Your task to perform on an android device: Open Chrome and go to settings Image 0: 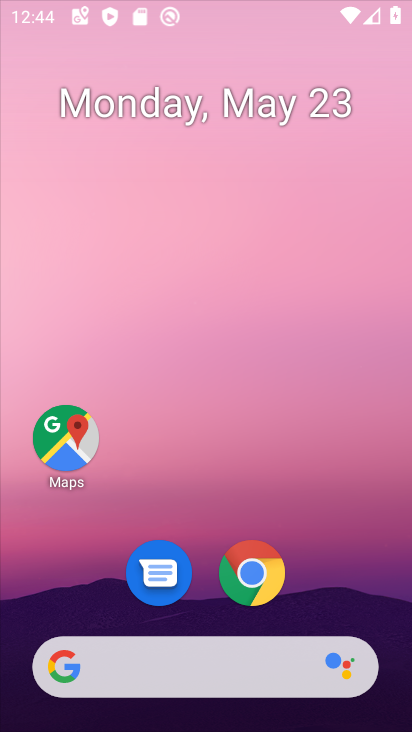
Step 0: drag from (347, 656) to (328, 7)
Your task to perform on an android device: Open Chrome and go to settings Image 1: 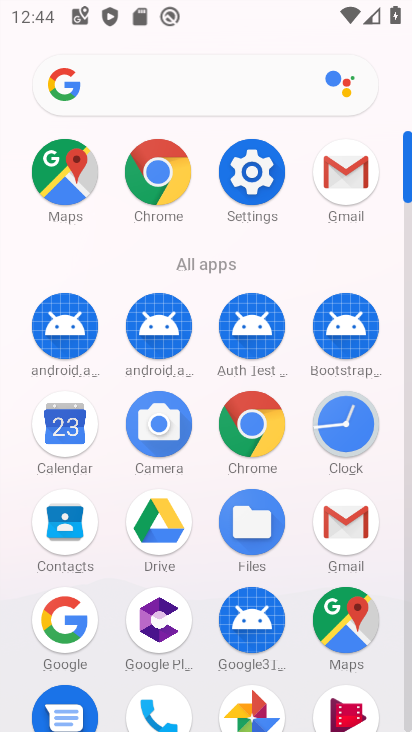
Step 1: click (246, 412)
Your task to perform on an android device: Open Chrome and go to settings Image 2: 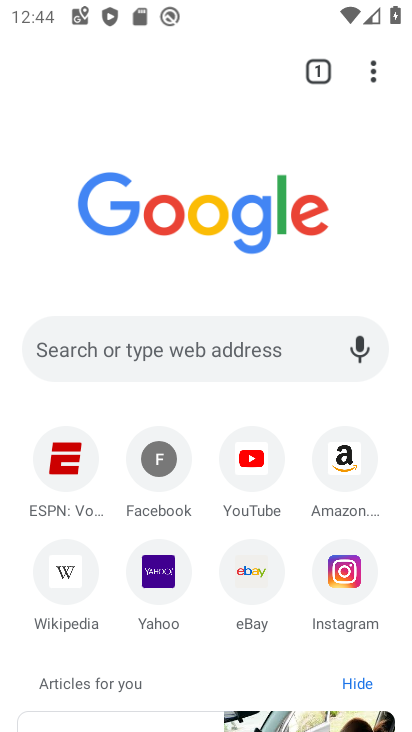
Step 2: task complete